Your task to perform on an android device: Do I have any events this weekend? Image 0: 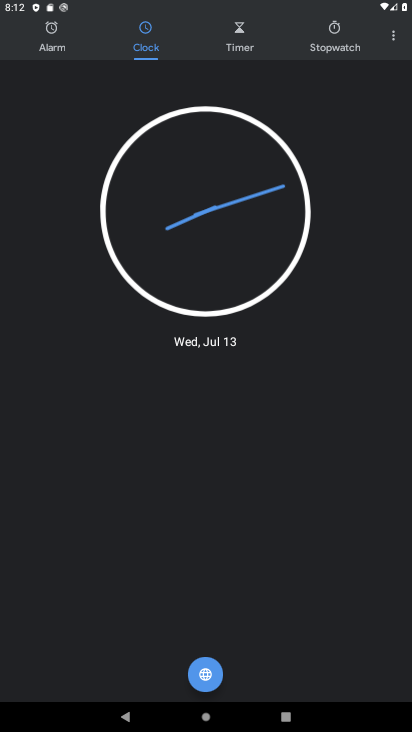
Step 0: press home button
Your task to perform on an android device: Do I have any events this weekend? Image 1: 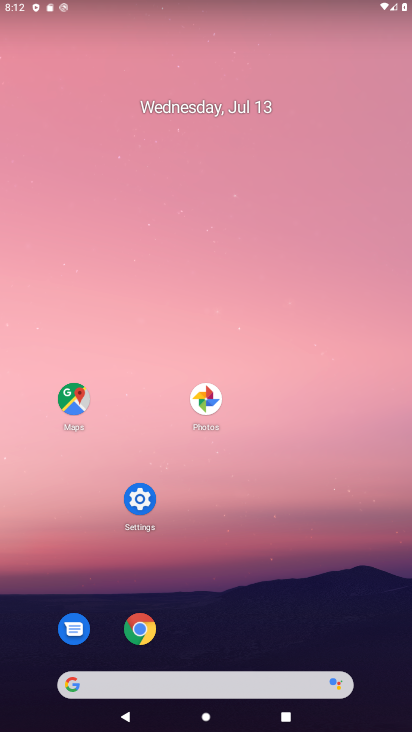
Step 1: drag from (368, 653) to (290, 43)
Your task to perform on an android device: Do I have any events this weekend? Image 2: 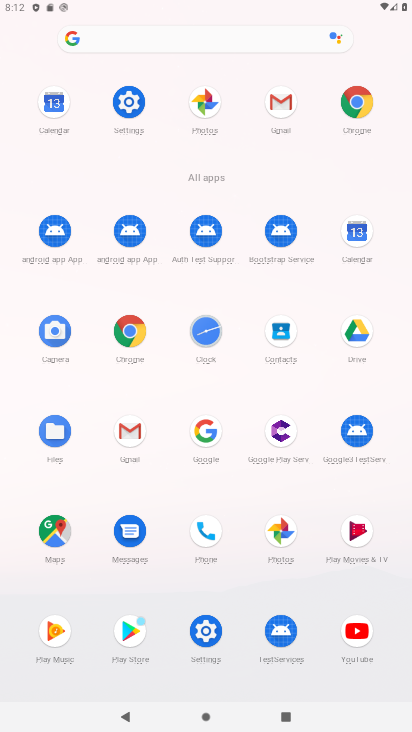
Step 2: click (50, 105)
Your task to perform on an android device: Do I have any events this weekend? Image 3: 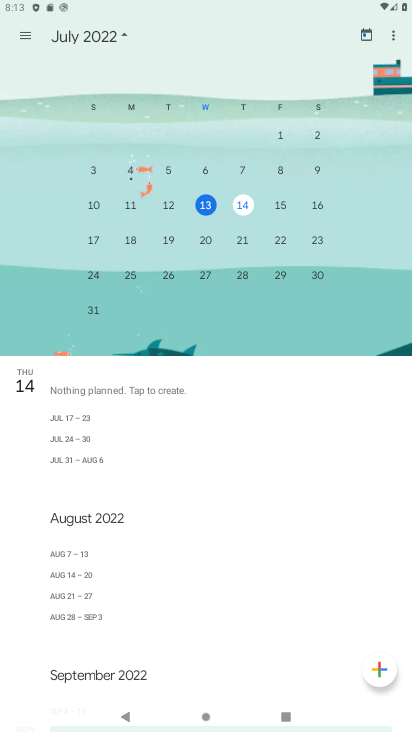
Step 3: click (24, 31)
Your task to perform on an android device: Do I have any events this weekend? Image 4: 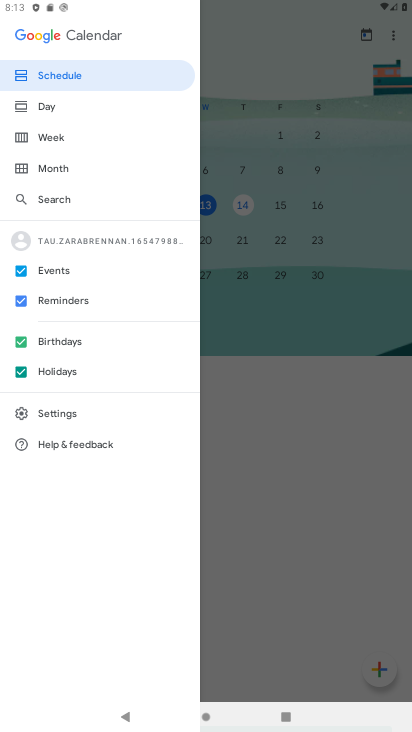
Step 4: click (45, 137)
Your task to perform on an android device: Do I have any events this weekend? Image 5: 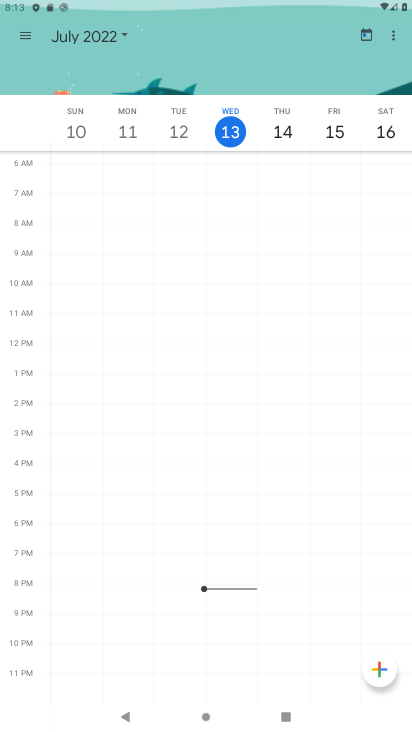
Step 5: task complete